Your task to perform on an android device: see tabs open on other devices in the chrome app Image 0: 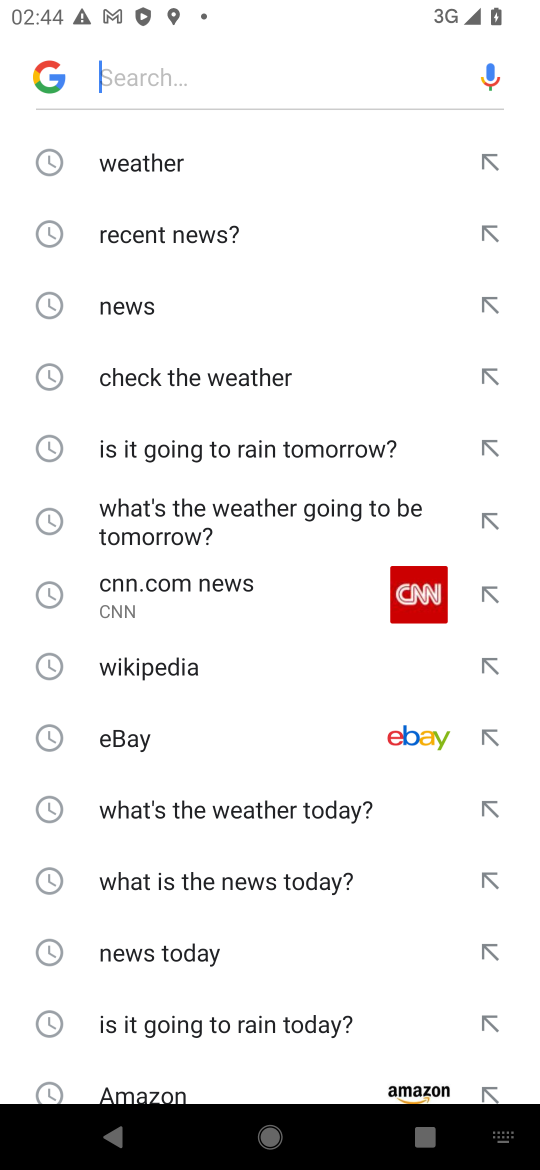
Step 0: press home button
Your task to perform on an android device: see tabs open on other devices in the chrome app Image 1: 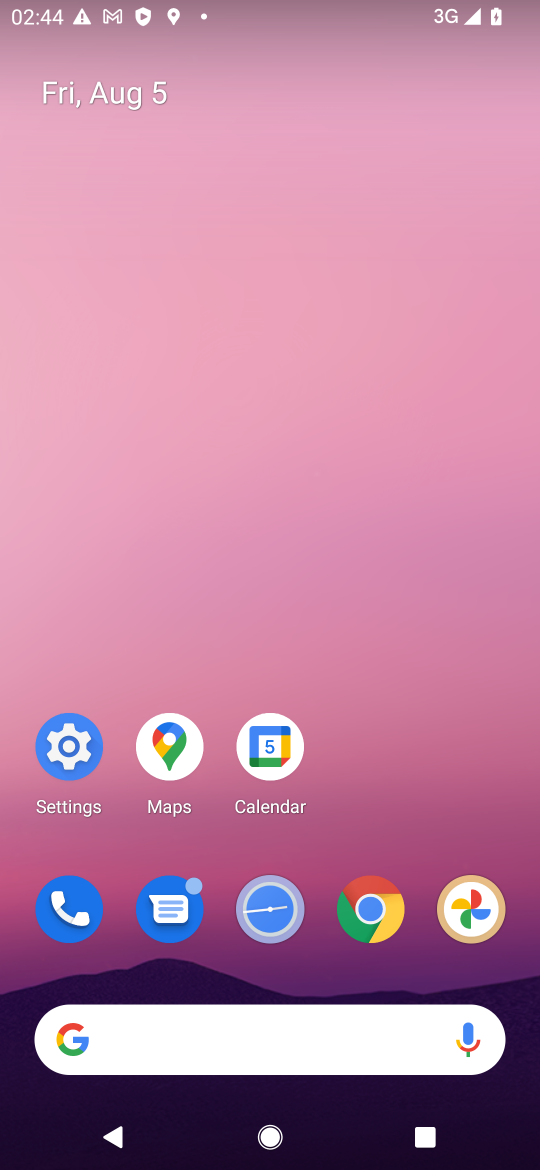
Step 1: click (361, 915)
Your task to perform on an android device: see tabs open on other devices in the chrome app Image 2: 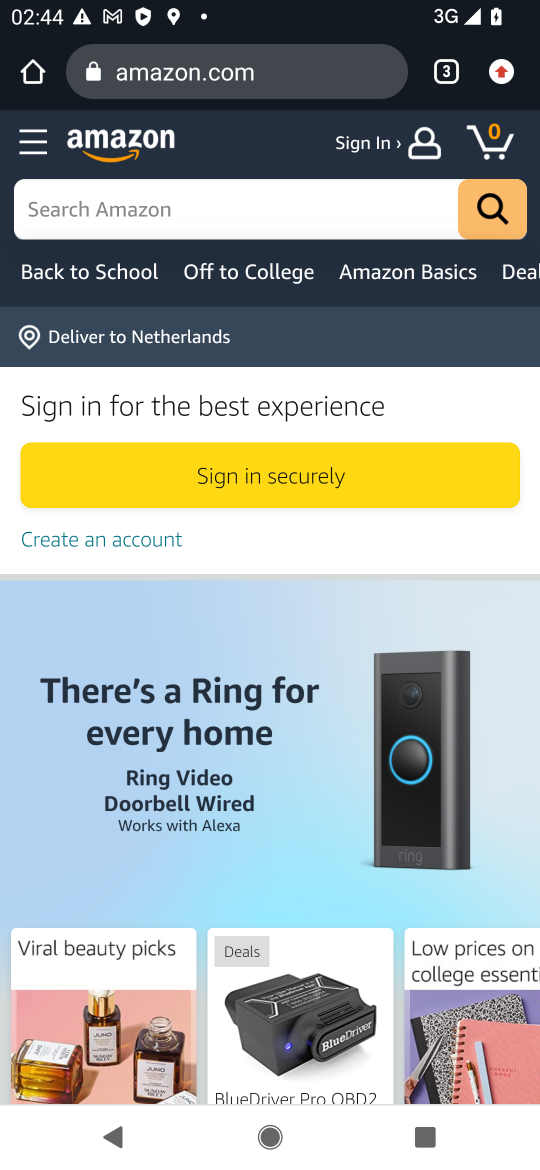
Step 2: click (500, 67)
Your task to perform on an android device: see tabs open on other devices in the chrome app Image 3: 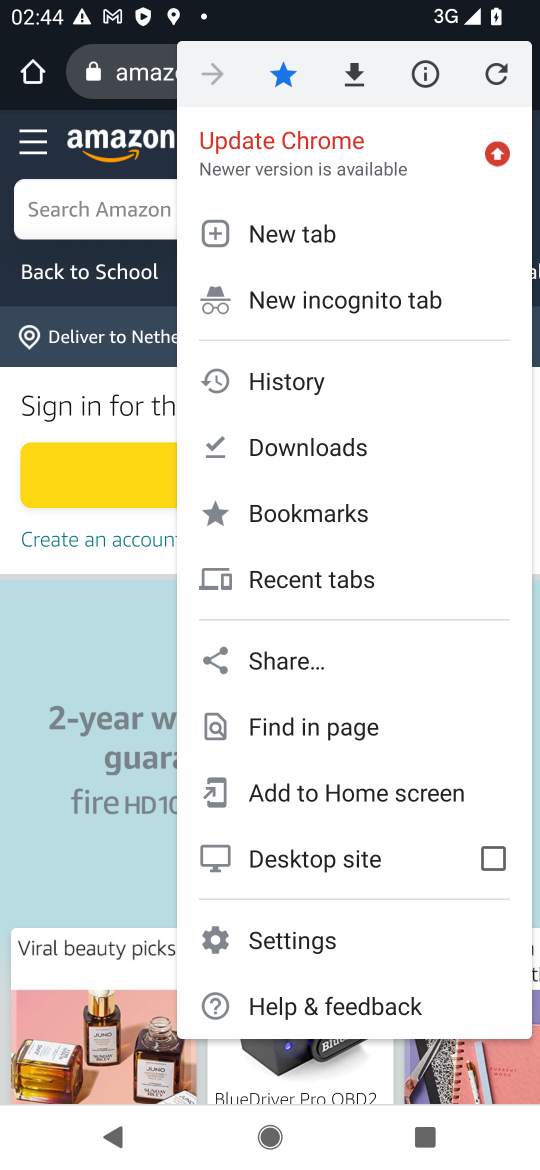
Step 3: click (280, 582)
Your task to perform on an android device: see tabs open on other devices in the chrome app Image 4: 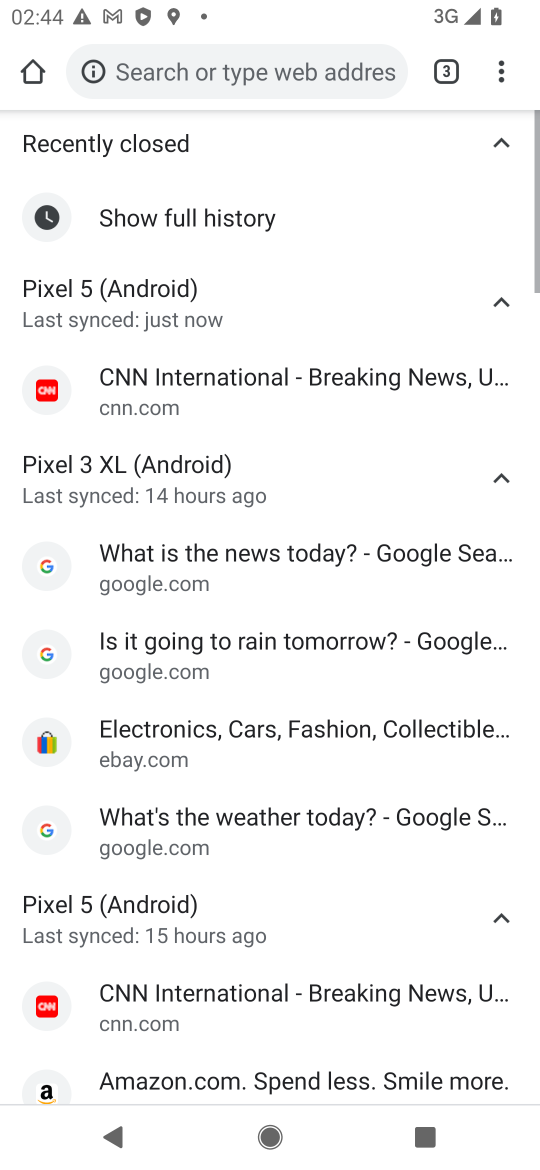
Step 4: task complete